Your task to perform on an android device: Go to accessibility settings Image 0: 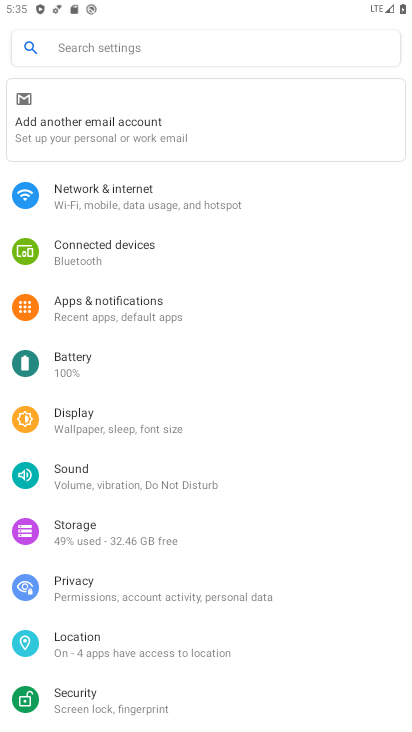
Step 0: drag from (134, 602) to (204, 198)
Your task to perform on an android device: Go to accessibility settings Image 1: 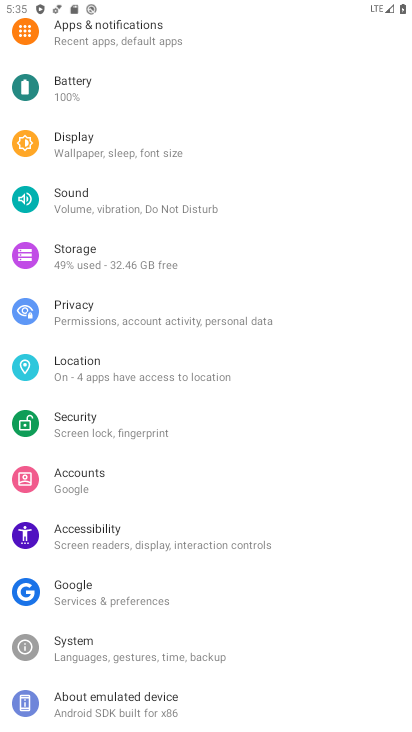
Step 1: click (96, 531)
Your task to perform on an android device: Go to accessibility settings Image 2: 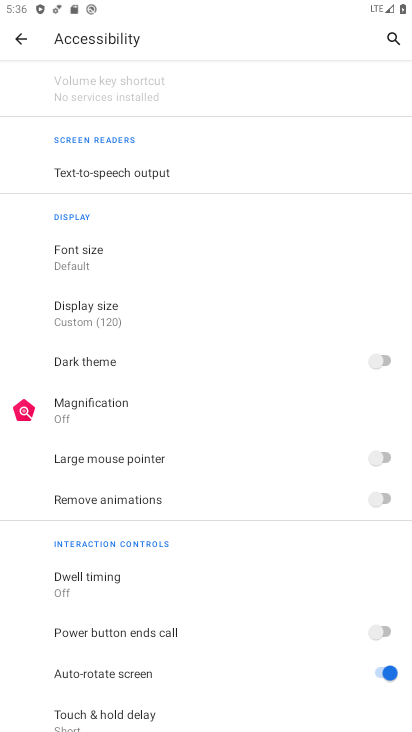
Step 2: task complete